Your task to perform on an android device: check data usage Image 0: 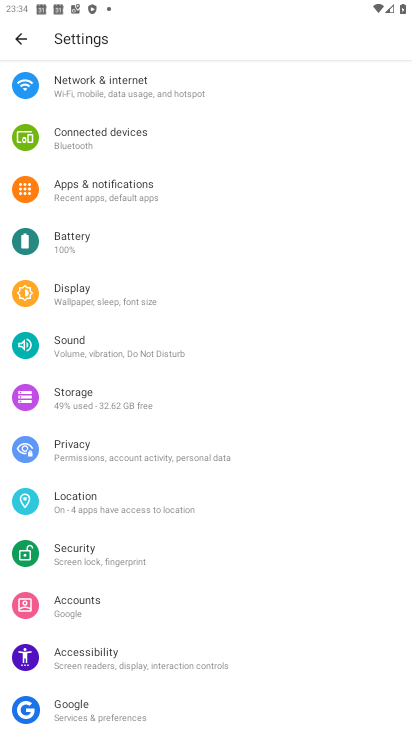
Step 0: click (214, 87)
Your task to perform on an android device: check data usage Image 1: 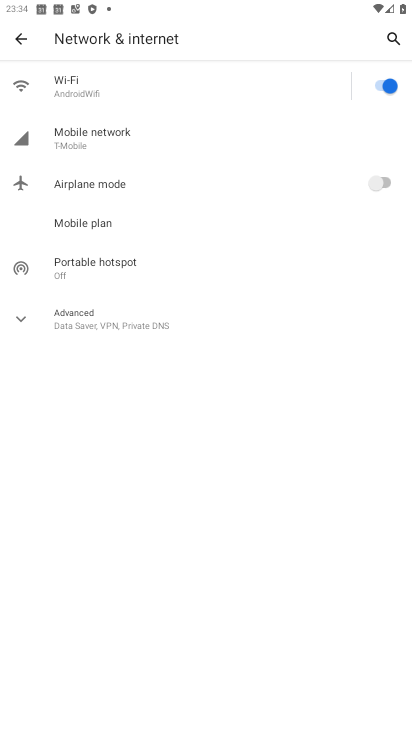
Step 1: click (140, 137)
Your task to perform on an android device: check data usage Image 2: 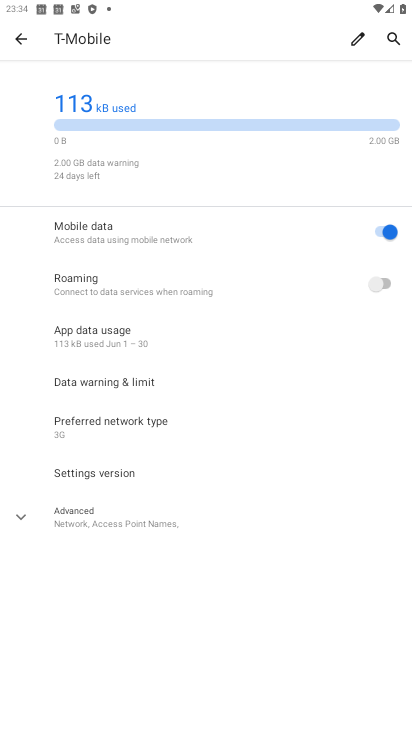
Step 2: task complete